Your task to perform on an android device: add a contact Image 0: 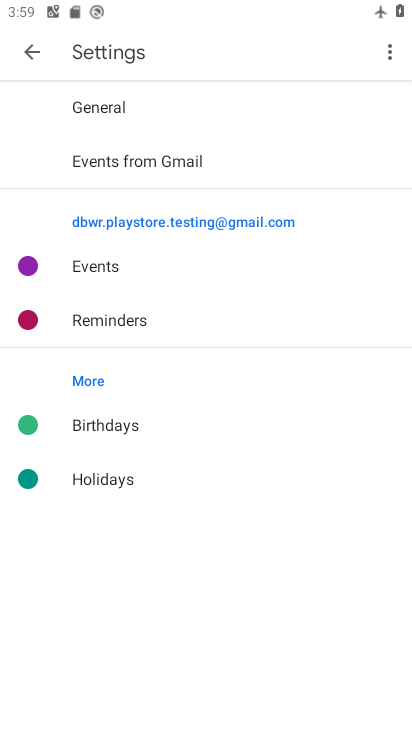
Step 0: press home button
Your task to perform on an android device: add a contact Image 1: 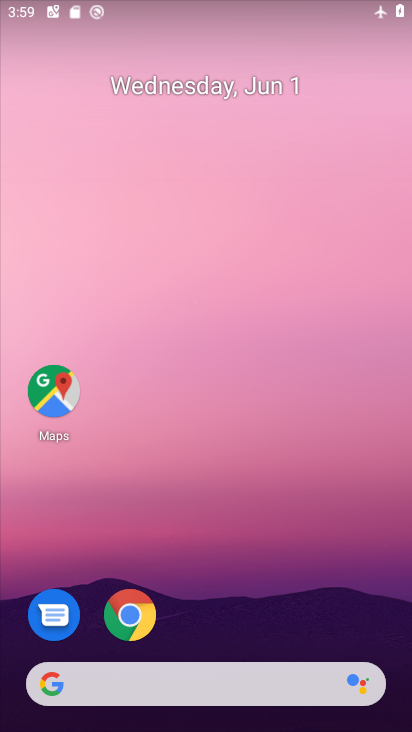
Step 1: drag from (248, 561) to (246, 113)
Your task to perform on an android device: add a contact Image 2: 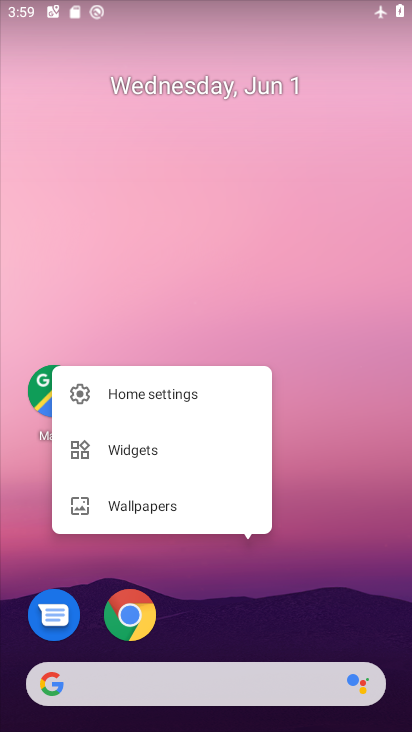
Step 2: click (337, 375)
Your task to perform on an android device: add a contact Image 3: 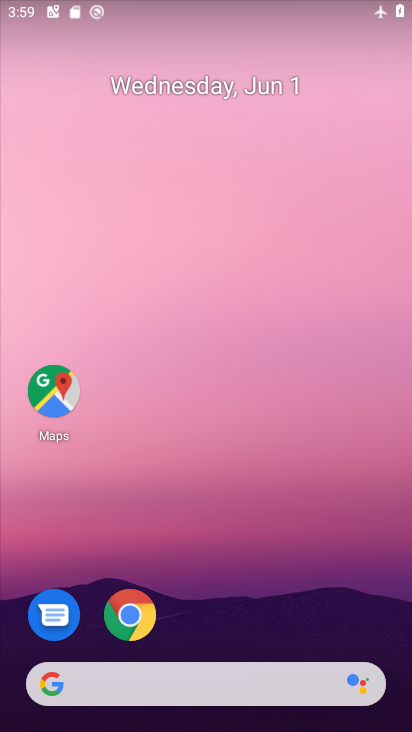
Step 3: drag from (335, 605) to (273, 135)
Your task to perform on an android device: add a contact Image 4: 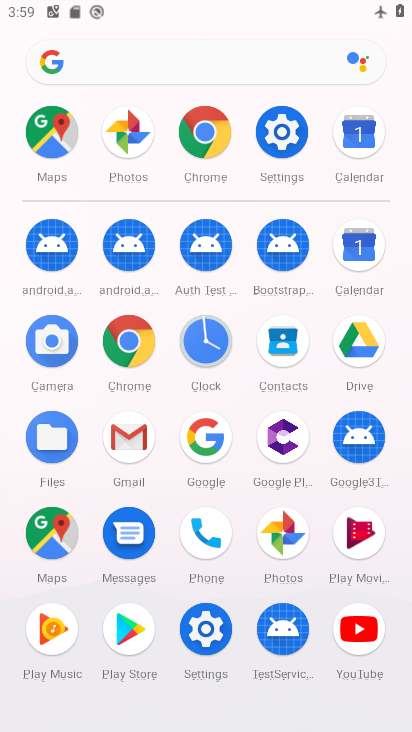
Step 4: click (356, 247)
Your task to perform on an android device: add a contact Image 5: 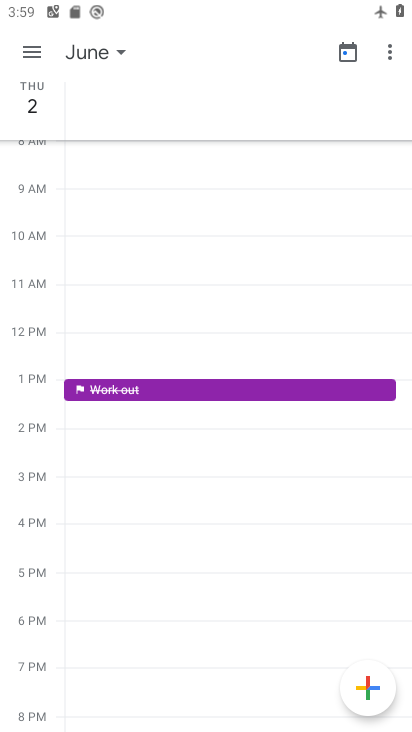
Step 5: press home button
Your task to perform on an android device: add a contact Image 6: 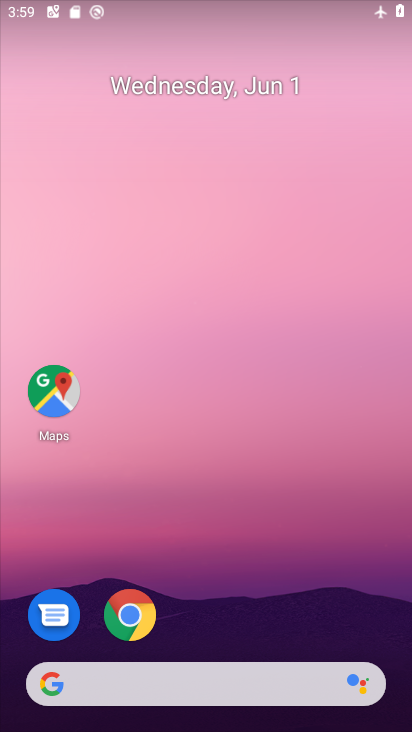
Step 6: drag from (298, 579) to (270, 139)
Your task to perform on an android device: add a contact Image 7: 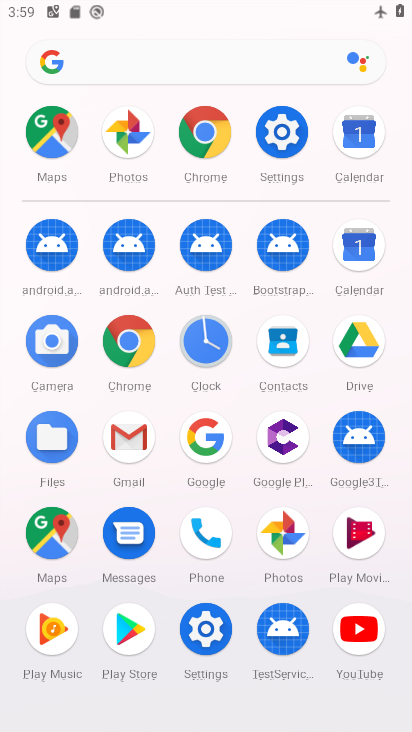
Step 7: click (290, 340)
Your task to perform on an android device: add a contact Image 8: 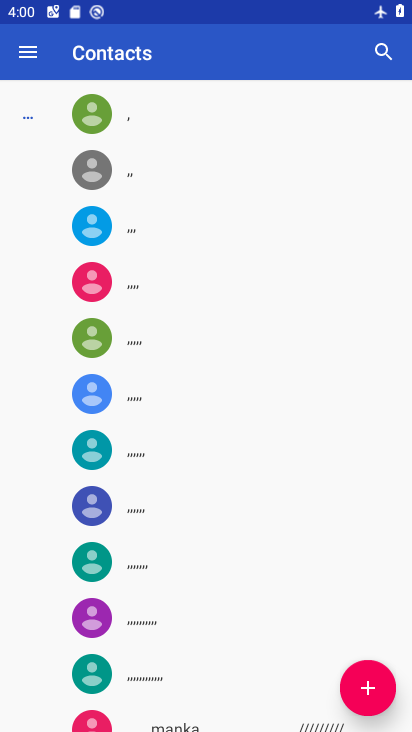
Step 8: click (375, 685)
Your task to perform on an android device: add a contact Image 9: 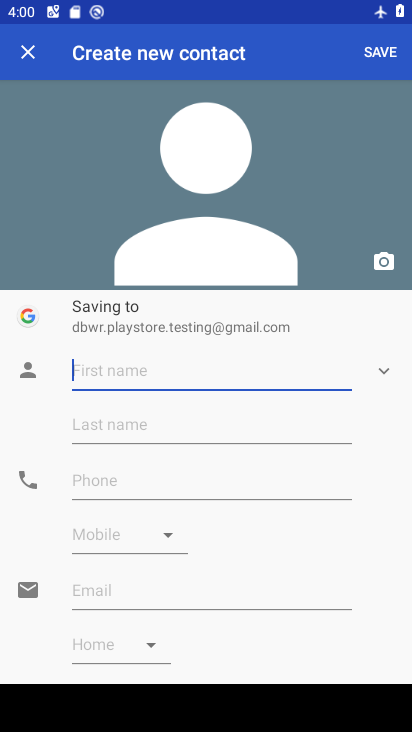
Step 9: type "nahi"
Your task to perform on an android device: add a contact Image 10: 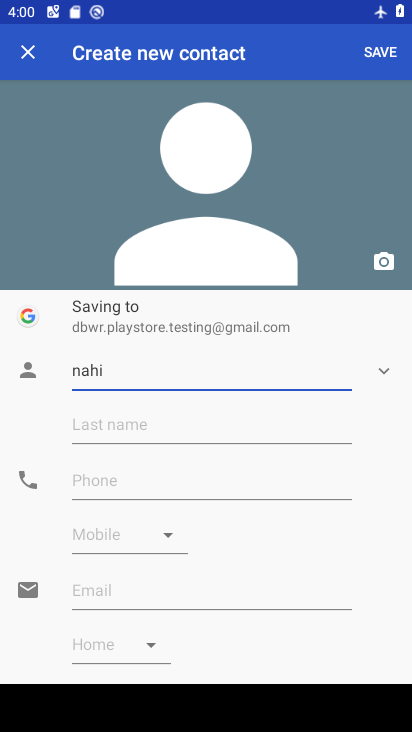
Step 10: click (395, 52)
Your task to perform on an android device: add a contact Image 11: 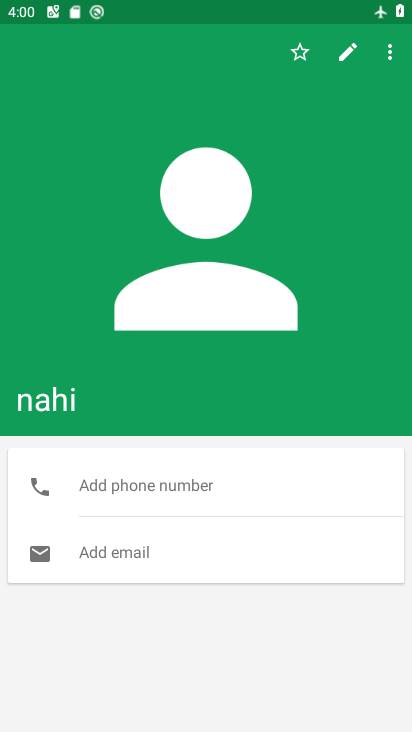
Step 11: task complete